Your task to perform on an android device: turn pop-ups off in chrome Image 0: 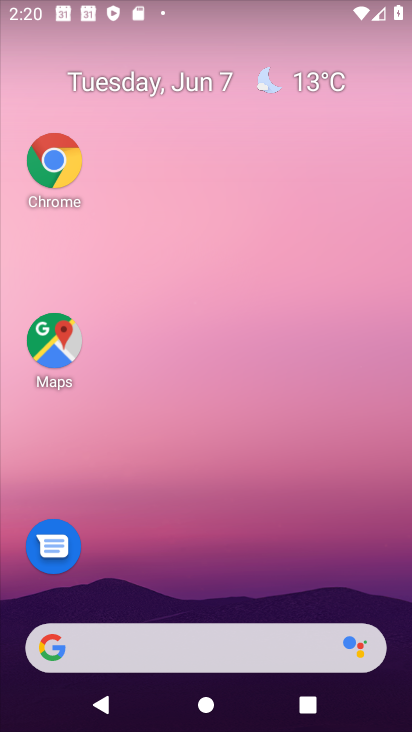
Step 0: drag from (218, 571) to (256, 0)
Your task to perform on an android device: turn pop-ups off in chrome Image 1: 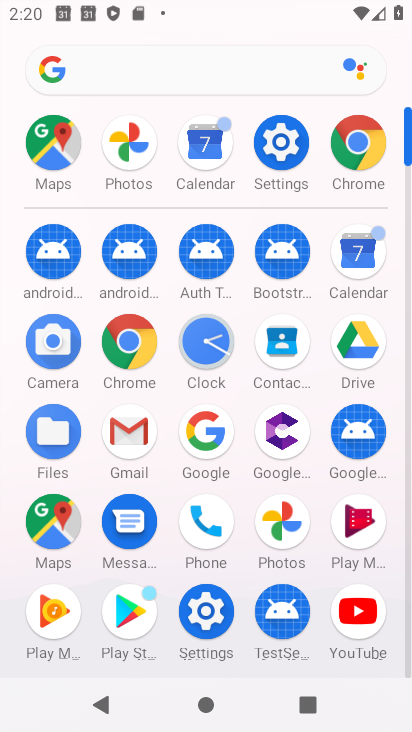
Step 1: click (124, 329)
Your task to perform on an android device: turn pop-ups off in chrome Image 2: 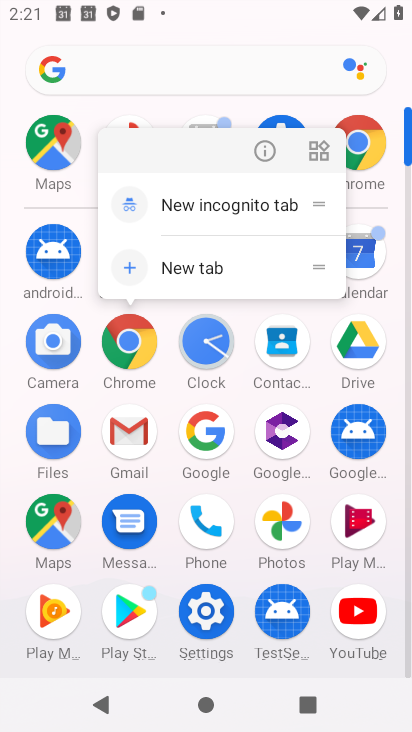
Step 2: click (259, 149)
Your task to perform on an android device: turn pop-ups off in chrome Image 3: 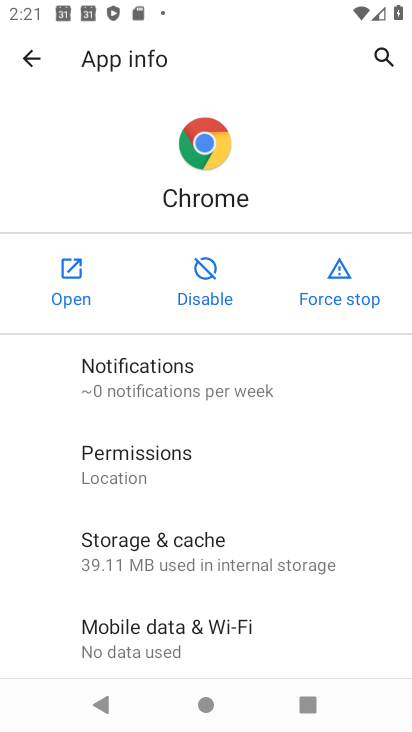
Step 3: click (69, 290)
Your task to perform on an android device: turn pop-ups off in chrome Image 4: 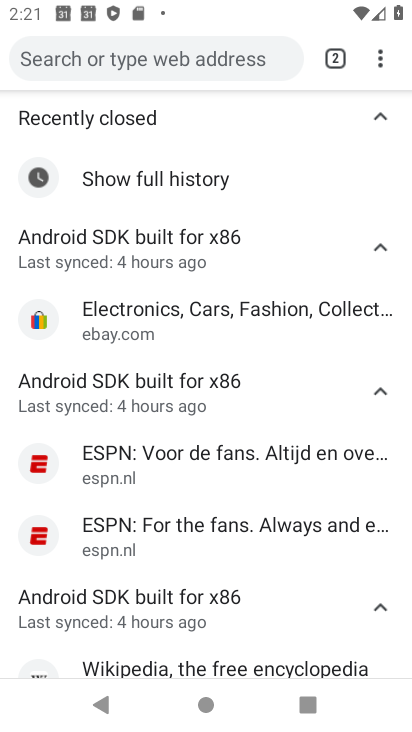
Step 4: drag from (383, 53) to (192, 504)
Your task to perform on an android device: turn pop-ups off in chrome Image 5: 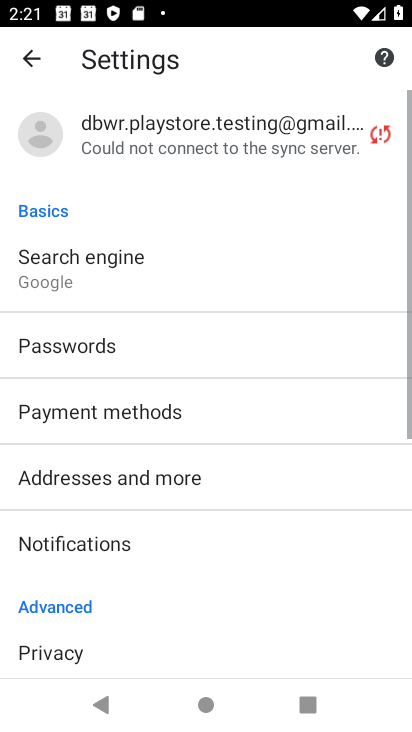
Step 5: drag from (169, 569) to (201, 80)
Your task to perform on an android device: turn pop-ups off in chrome Image 6: 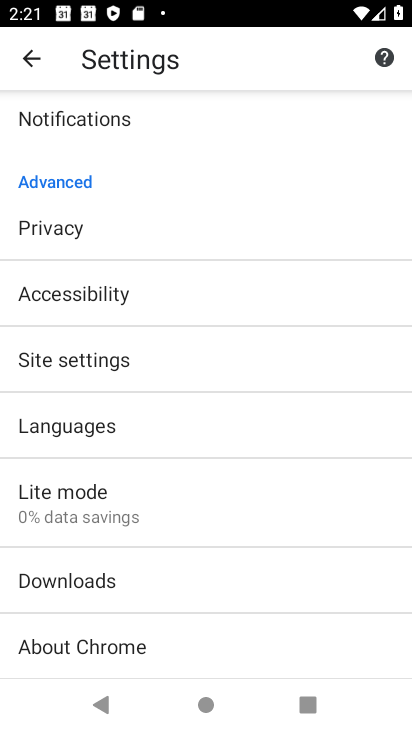
Step 6: drag from (129, 600) to (241, 197)
Your task to perform on an android device: turn pop-ups off in chrome Image 7: 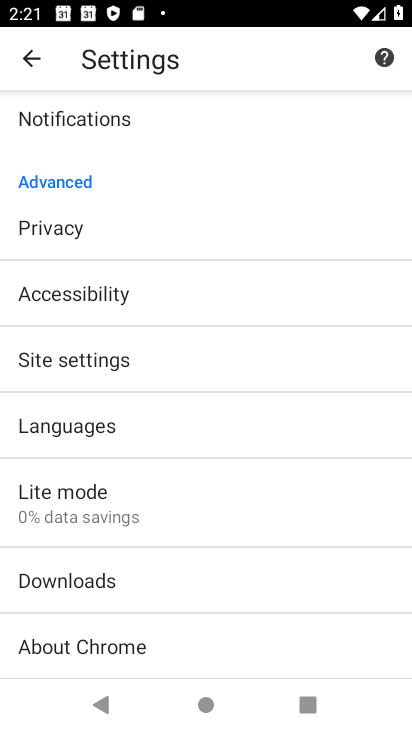
Step 7: click (132, 346)
Your task to perform on an android device: turn pop-ups off in chrome Image 8: 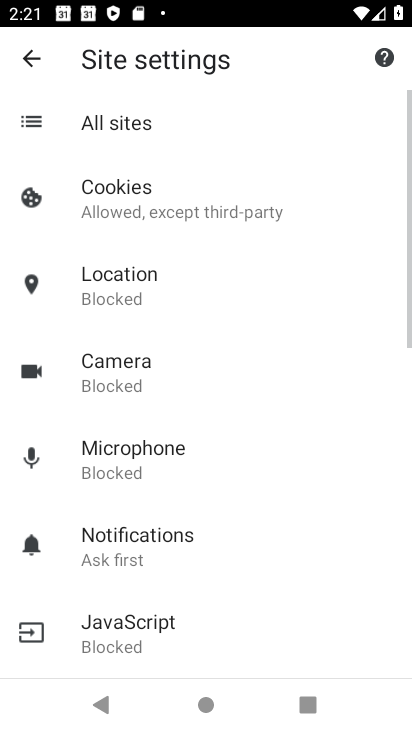
Step 8: drag from (255, 559) to (279, 53)
Your task to perform on an android device: turn pop-ups off in chrome Image 9: 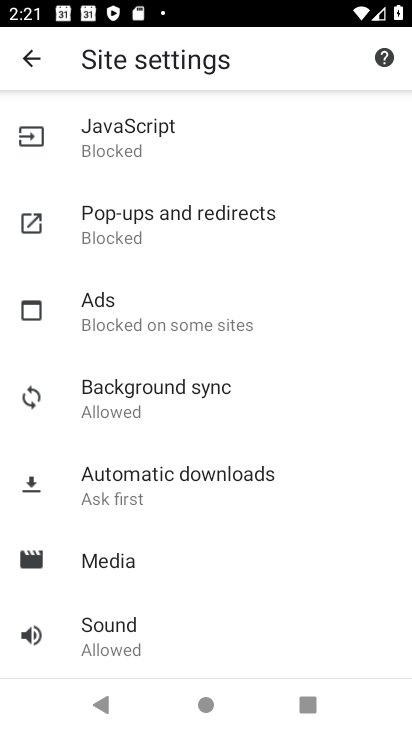
Step 9: drag from (249, 546) to (310, 166)
Your task to perform on an android device: turn pop-ups off in chrome Image 10: 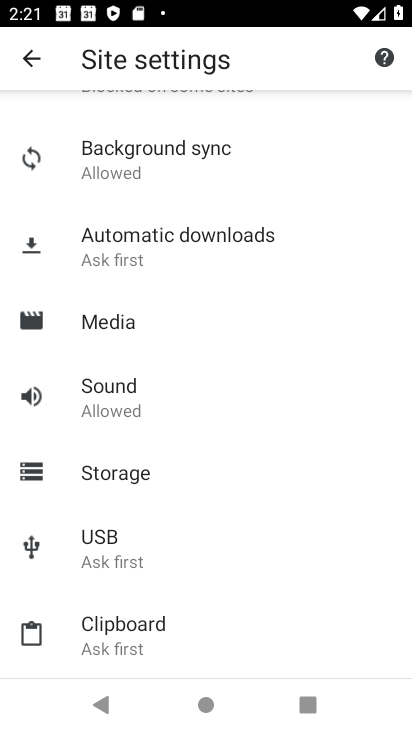
Step 10: drag from (210, 545) to (283, 154)
Your task to perform on an android device: turn pop-ups off in chrome Image 11: 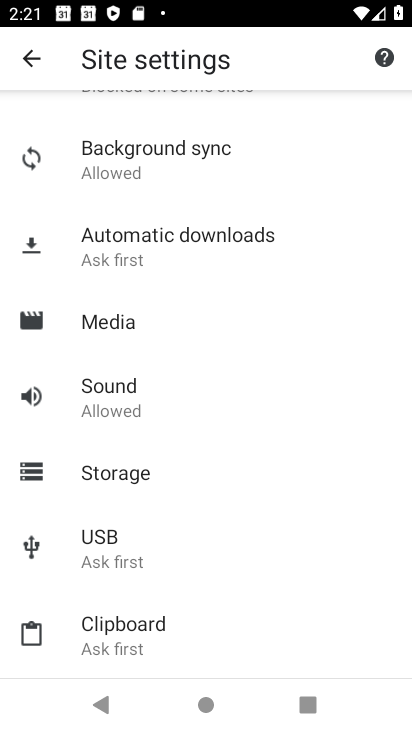
Step 11: drag from (199, 589) to (283, 186)
Your task to perform on an android device: turn pop-ups off in chrome Image 12: 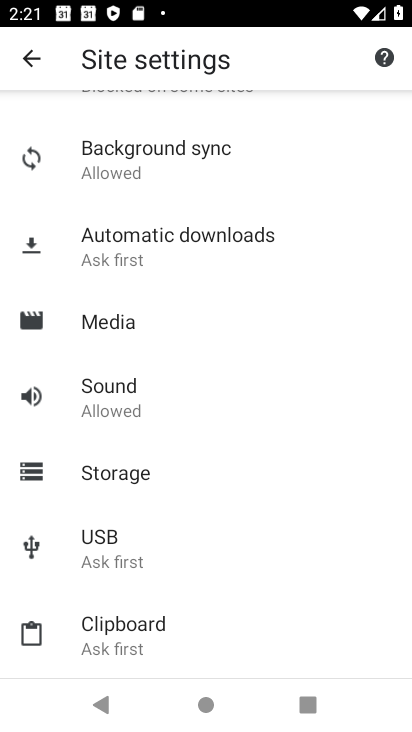
Step 12: drag from (197, 178) to (259, 727)
Your task to perform on an android device: turn pop-ups off in chrome Image 13: 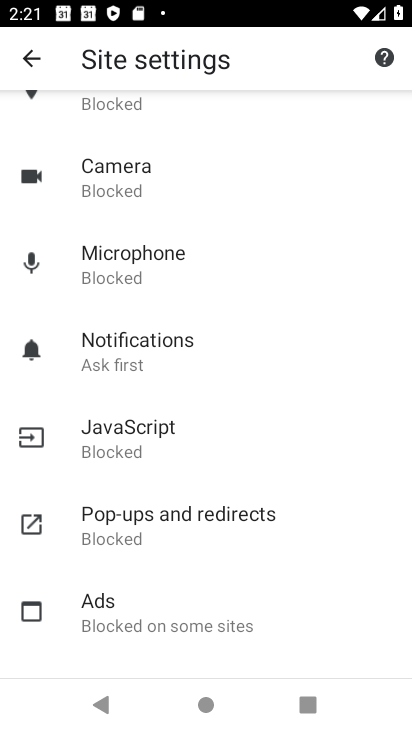
Step 13: click (95, 549)
Your task to perform on an android device: turn pop-ups off in chrome Image 14: 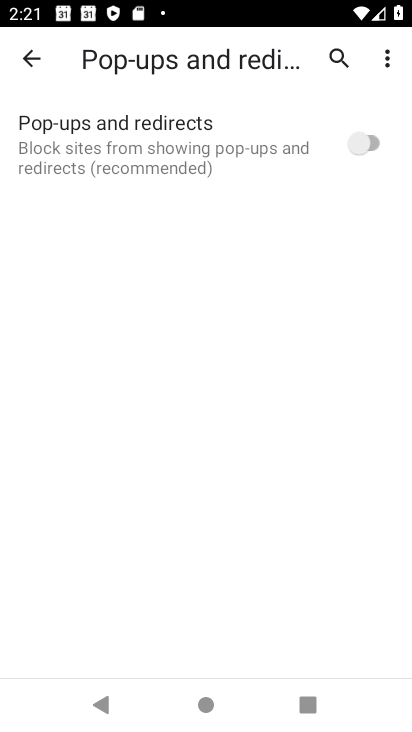
Step 14: task complete